Your task to perform on an android device: Open calendar and show me the third week of next month Image 0: 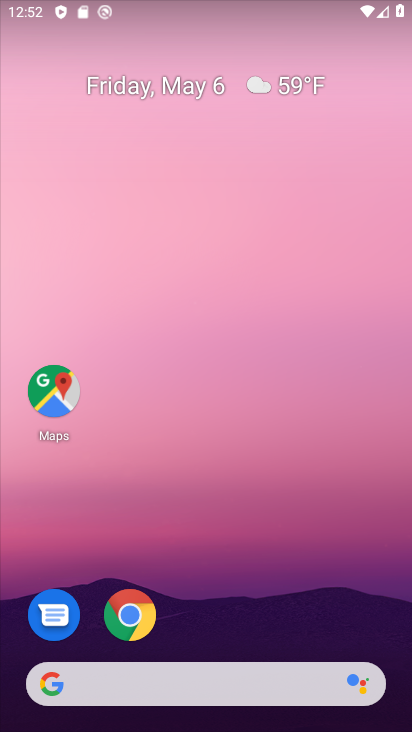
Step 0: drag from (312, 531) to (296, 11)
Your task to perform on an android device: Open calendar and show me the third week of next month Image 1: 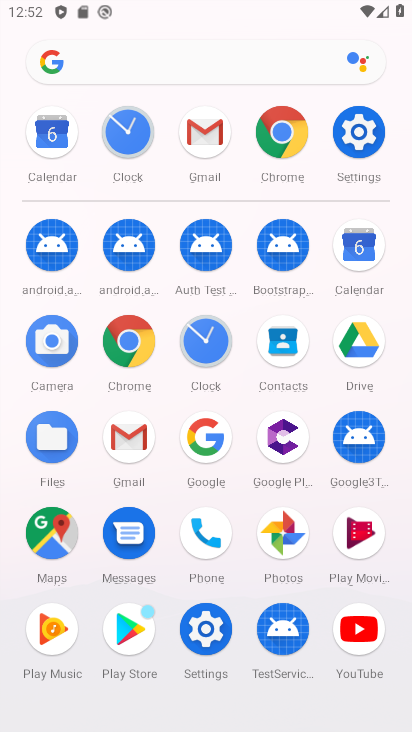
Step 1: click (347, 251)
Your task to perform on an android device: Open calendar and show me the third week of next month Image 2: 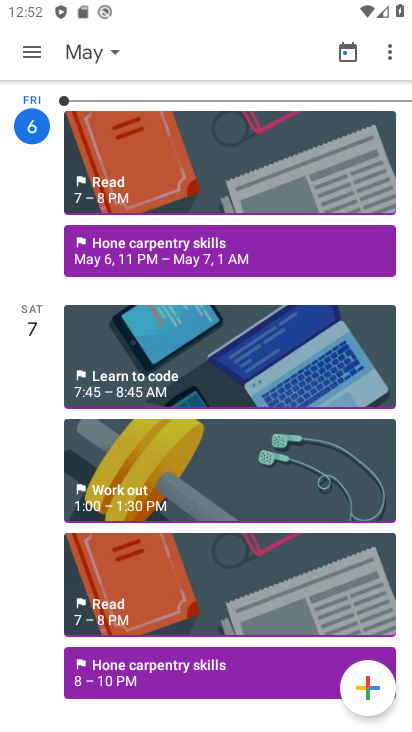
Step 2: click (35, 45)
Your task to perform on an android device: Open calendar and show me the third week of next month Image 3: 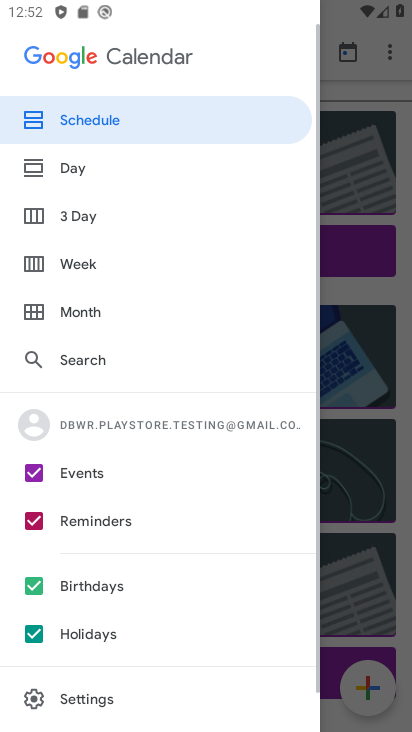
Step 3: click (74, 259)
Your task to perform on an android device: Open calendar and show me the third week of next month Image 4: 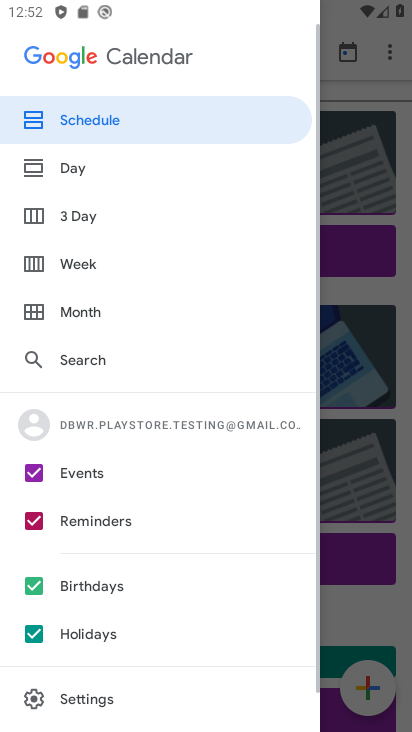
Step 4: click (37, 260)
Your task to perform on an android device: Open calendar and show me the third week of next month Image 5: 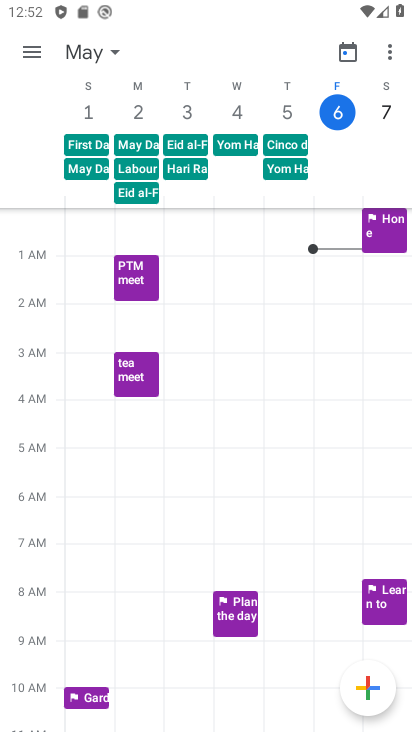
Step 5: task complete